Your task to perform on an android device: Open display settings Image 0: 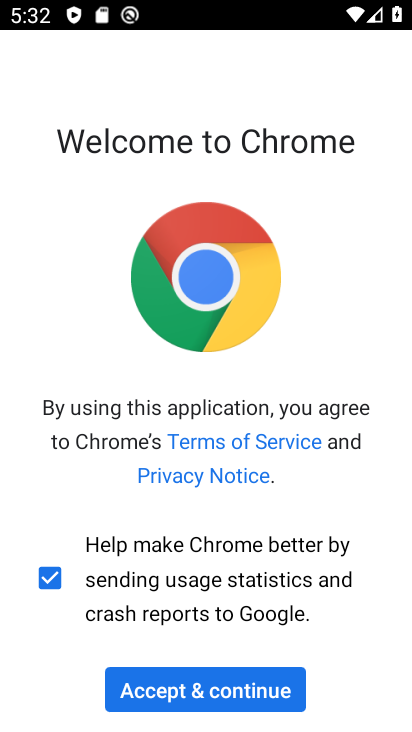
Step 0: press back button
Your task to perform on an android device: Open display settings Image 1: 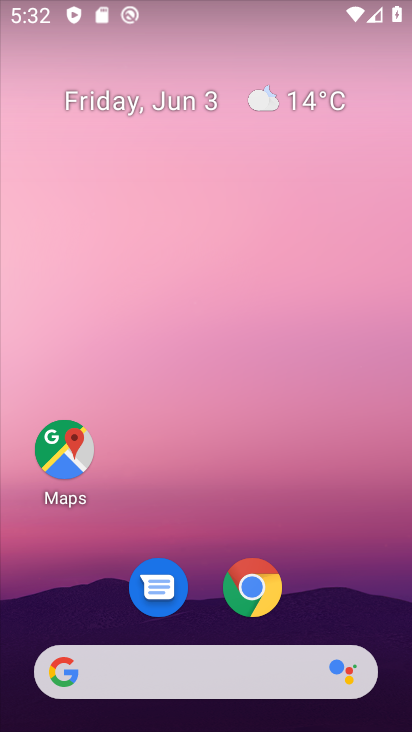
Step 1: drag from (336, 342) to (293, 38)
Your task to perform on an android device: Open display settings Image 2: 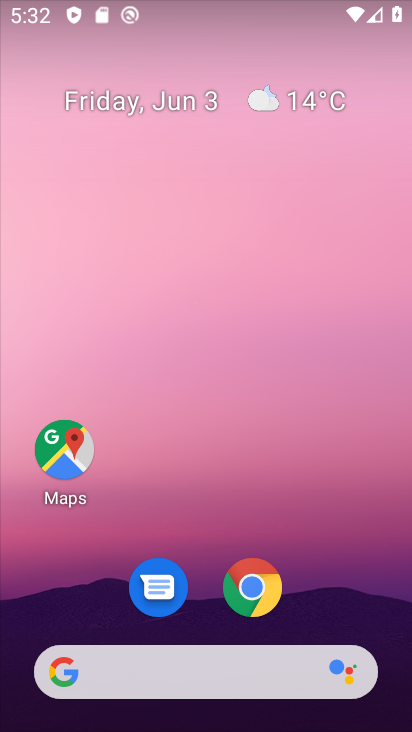
Step 2: drag from (201, 511) to (188, 43)
Your task to perform on an android device: Open display settings Image 3: 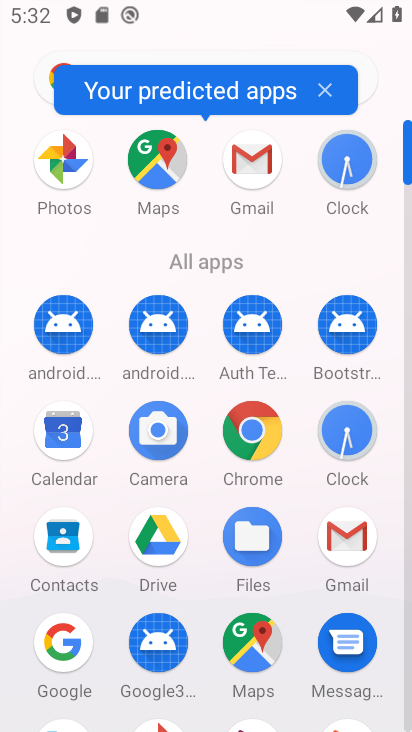
Step 3: drag from (8, 549) to (15, 160)
Your task to perform on an android device: Open display settings Image 4: 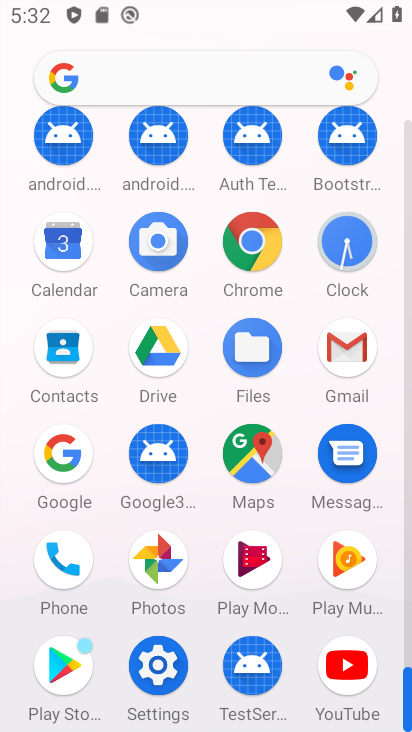
Step 4: click (158, 663)
Your task to perform on an android device: Open display settings Image 5: 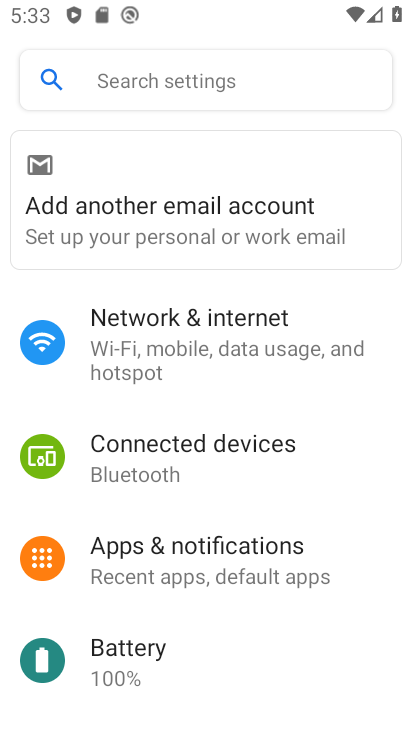
Step 5: drag from (281, 555) to (319, 288)
Your task to perform on an android device: Open display settings Image 6: 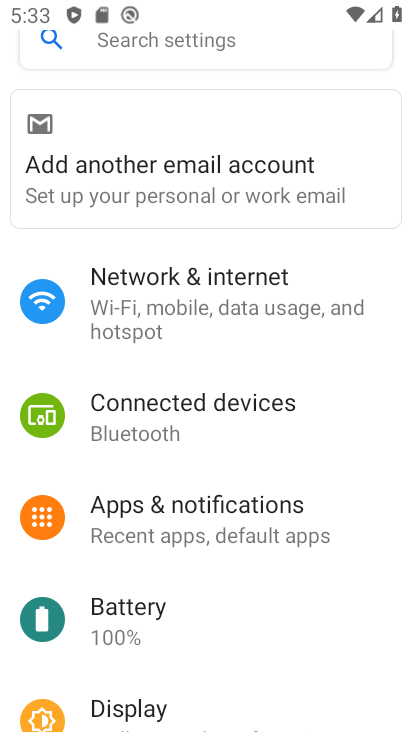
Step 6: drag from (202, 653) to (261, 246)
Your task to perform on an android device: Open display settings Image 7: 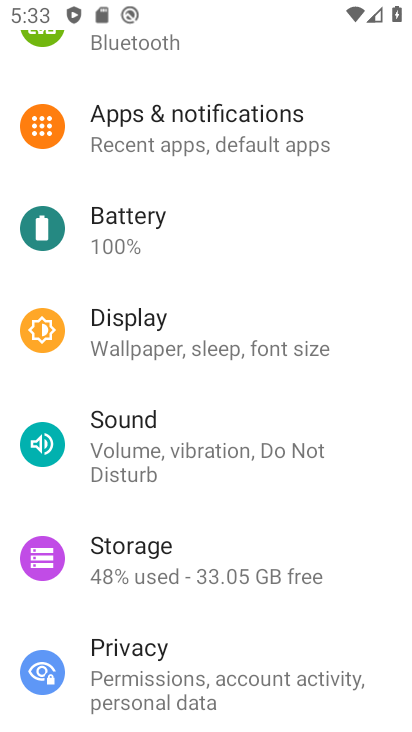
Step 7: click (164, 335)
Your task to perform on an android device: Open display settings Image 8: 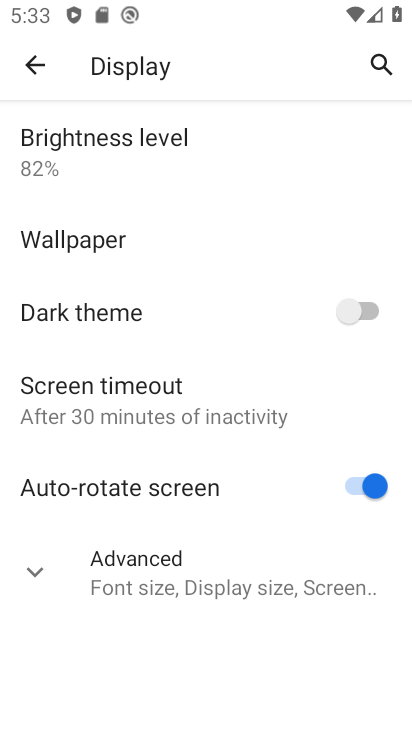
Step 8: click (26, 563)
Your task to perform on an android device: Open display settings Image 9: 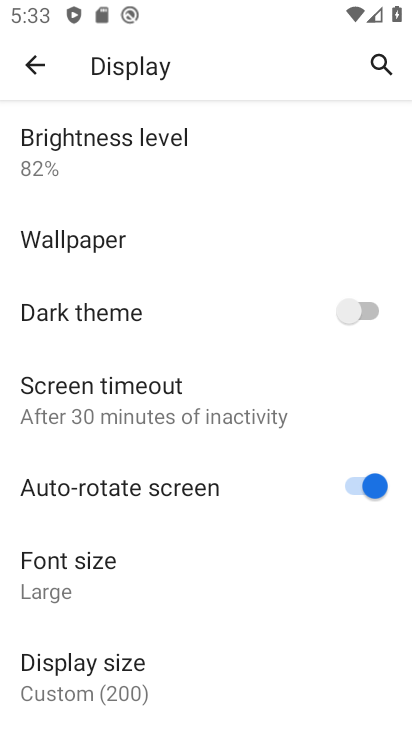
Step 9: task complete